Your task to perform on an android device: change the clock display to digital Image 0: 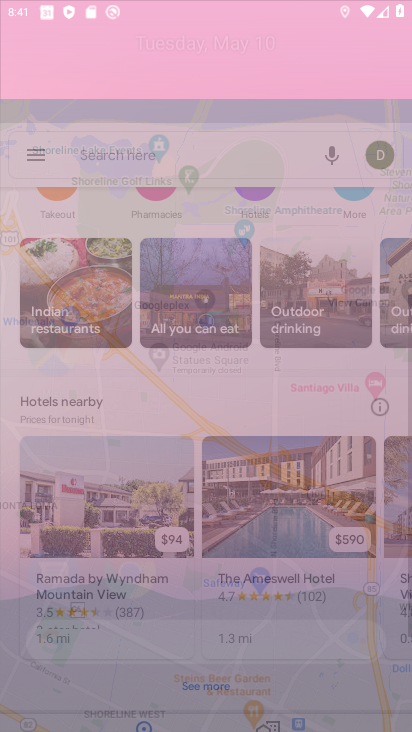
Step 0: drag from (202, 573) to (214, 334)
Your task to perform on an android device: change the clock display to digital Image 1: 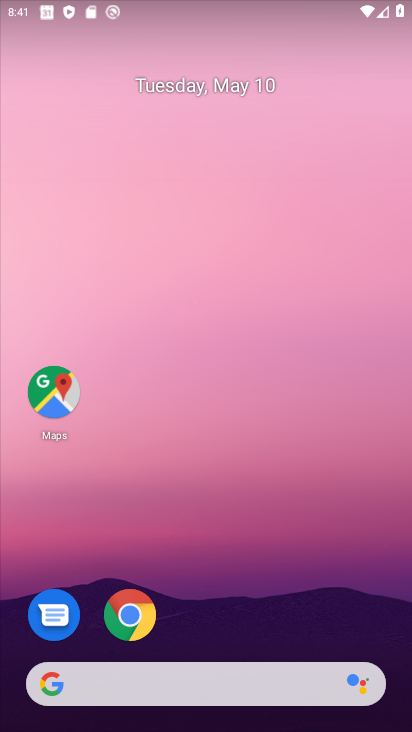
Step 1: drag from (217, 583) to (220, 147)
Your task to perform on an android device: change the clock display to digital Image 2: 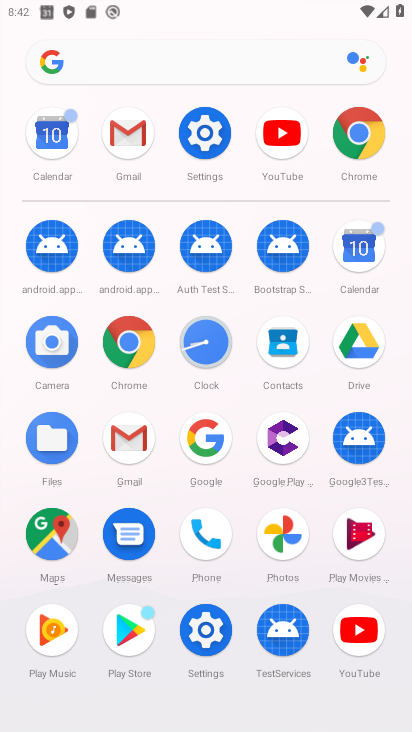
Step 2: click (195, 353)
Your task to perform on an android device: change the clock display to digital Image 3: 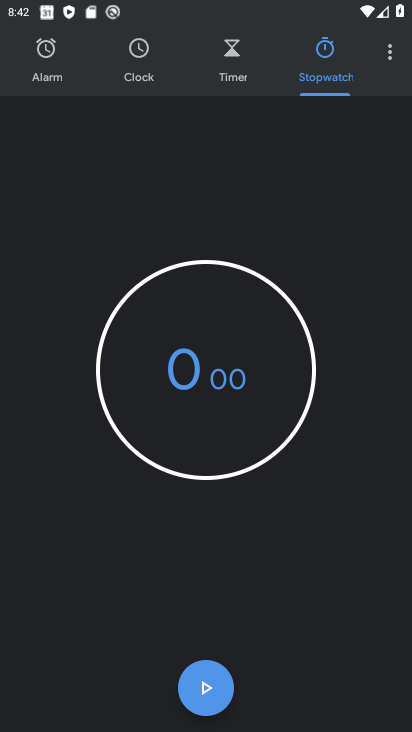
Step 3: click (395, 43)
Your task to perform on an android device: change the clock display to digital Image 4: 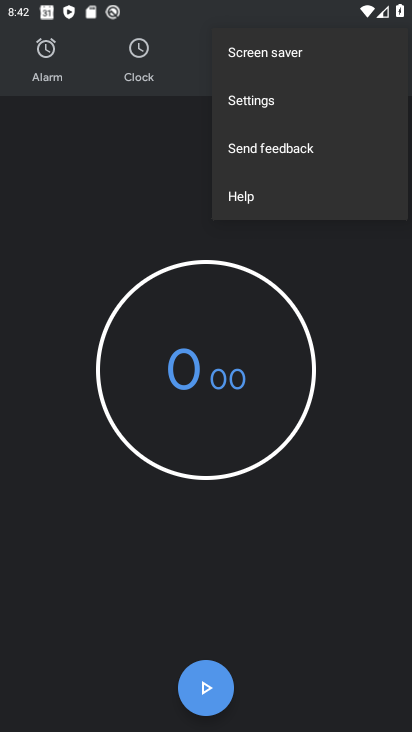
Step 4: click (278, 101)
Your task to perform on an android device: change the clock display to digital Image 5: 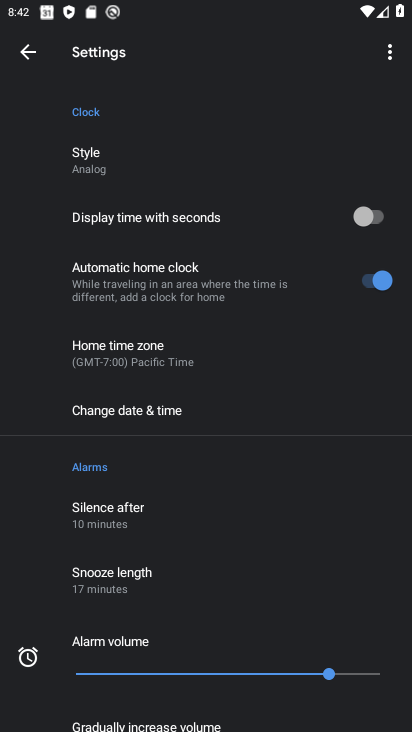
Step 5: click (130, 171)
Your task to perform on an android device: change the clock display to digital Image 6: 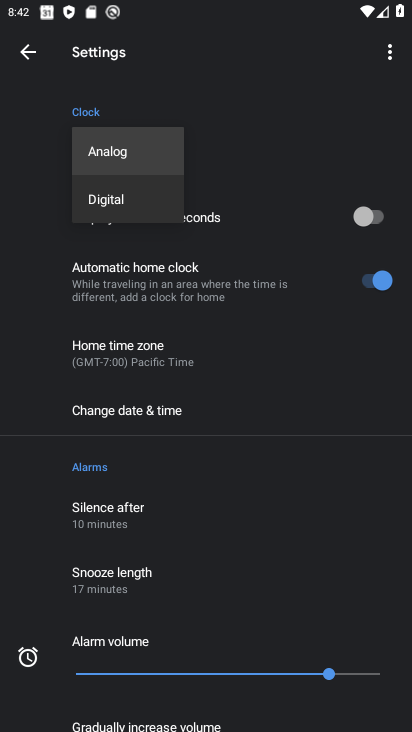
Step 6: click (117, 183)
Your task to perform on an android device: change the clock display to digital Image 7: 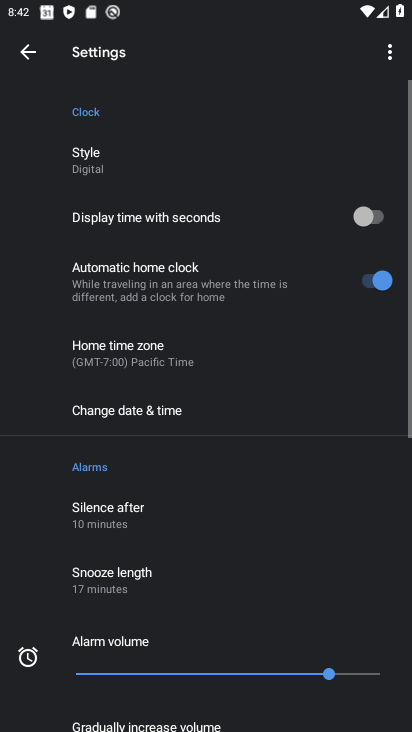
Step 7: task complete